Your task to perform on an android device: Play the last video I watched on Youtube Image 0: 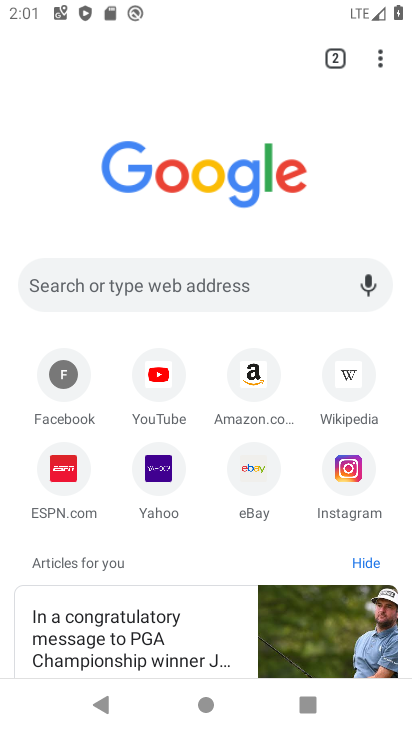
Step 0: press home button
Your task to perform on an android device: Play the last video I watched on Youtube Image 1: 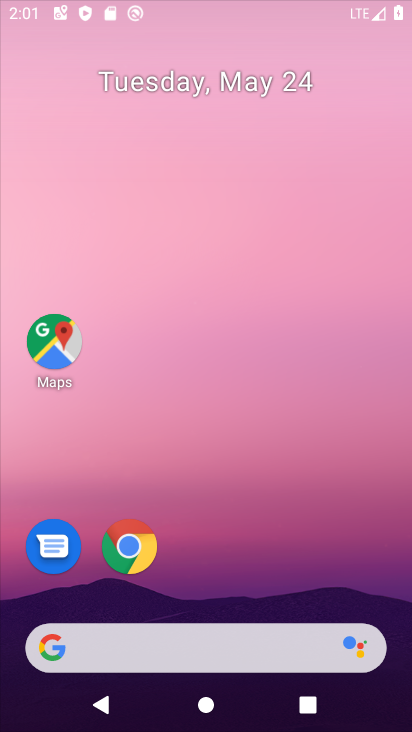
Step 1: drag from (211, 581) to (320, 57)
Your task to perform on an android device: Play the last video I watched on Youtube Image 2: 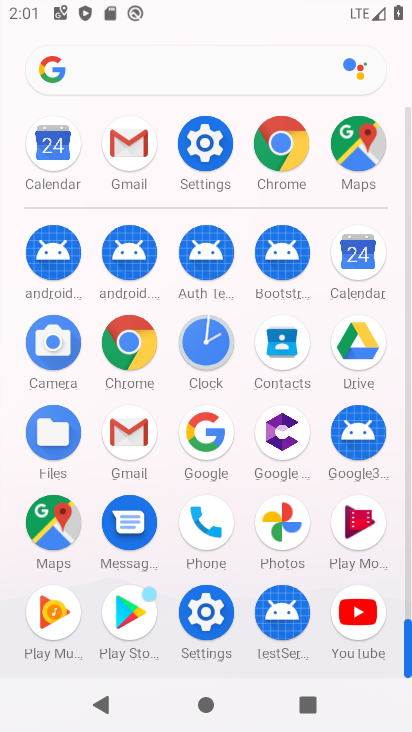
Step 2: click (360, 615)
Your task to perform on an android device: Play the last video I watched on Youtube Image 3: 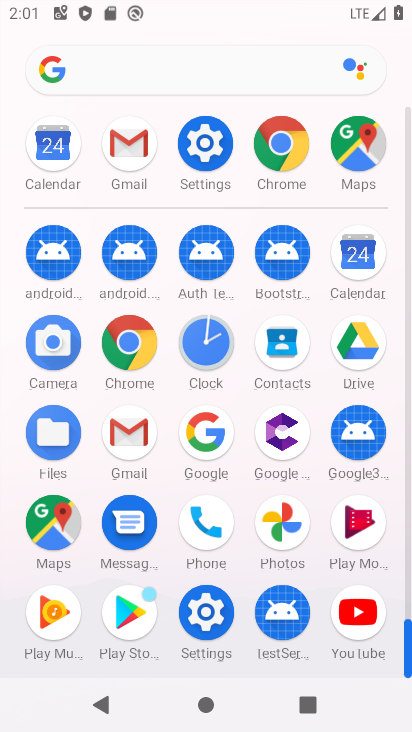
Step 3: click (360, 615)
Your task to perform on an android device: Play the last video I watched on Youtube Image 4: 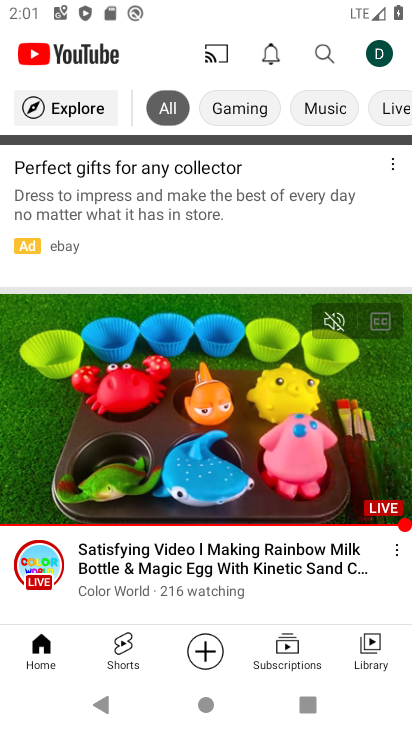
Step 4: drag from (198, 565) to (303, 100)
Your task to perform on an android device: Play the last video I watched on Youtube Image 5: 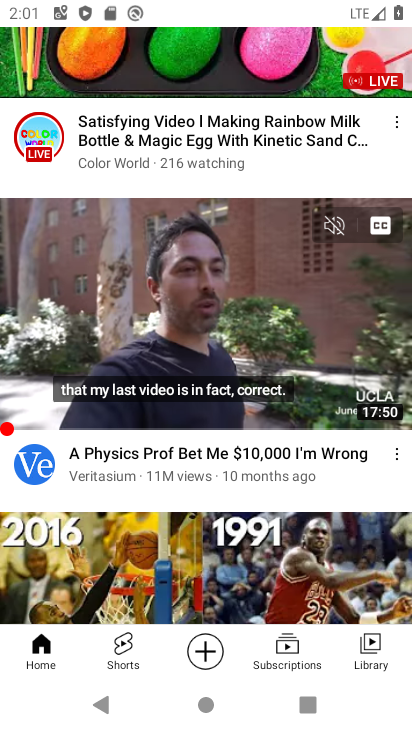
Step 5: drag from (215, 564) to (298, 136)
Your task to perform on an android device: Play the last video I watched on Youtube Image 6: 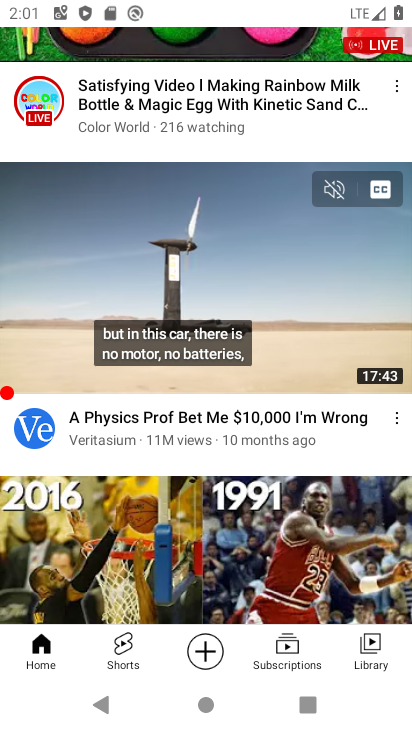
Step 6: drag from (259, 555) to (323, 214)
Your task to perform on an android device: Play the last video I watched on Youtube Image 7: 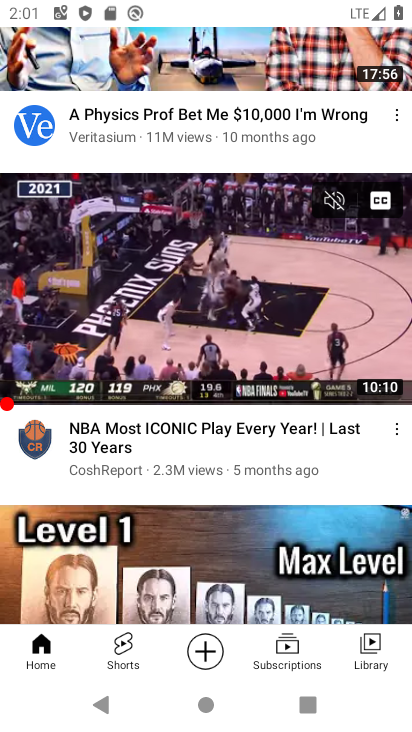
Step 7: click (369, 655)
Your task to perform on an android device: Play the last video I watched on Youtube Image 8: 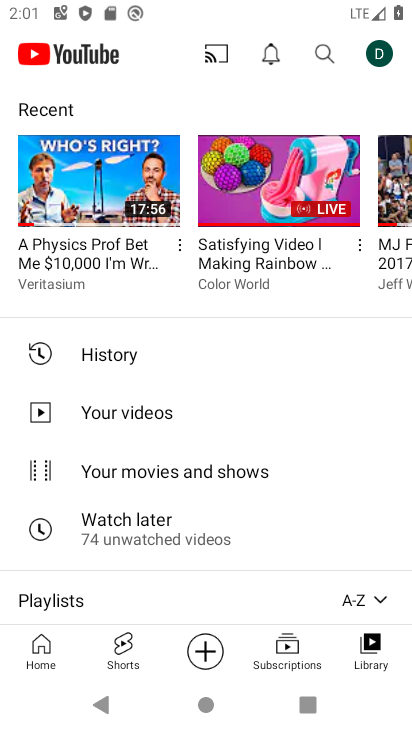
Step 8: click (106, 185)
Your task to perform on an android device: Play the last video I watched on Youtube Image 9: 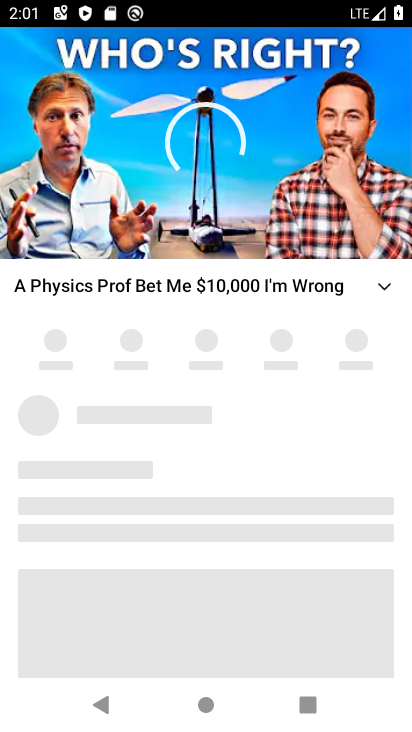
Step 9: task complete